Your task to perform on an android device: Search for pizza restaurants on Maps Image 0: 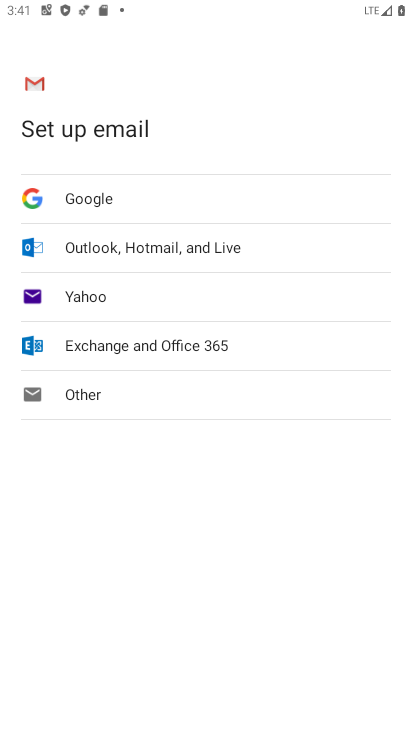
Step 0: press home button
Your task to perform on an android device: Search for pizza restaurants on Maps Image 1: 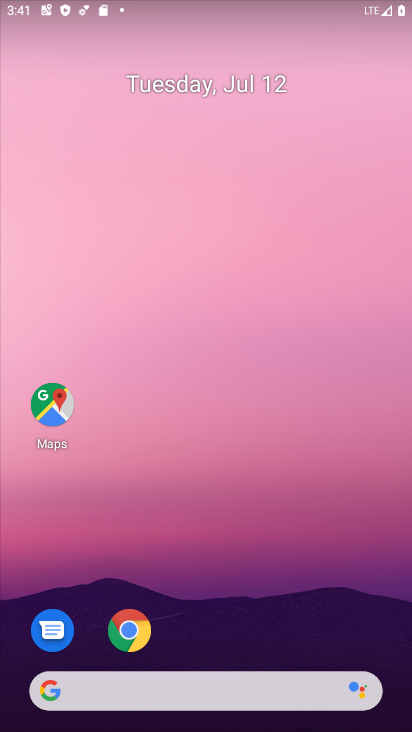
Step 1: drag from (262, 696) to (344, 3)
Your task to perform on an android device: Search for pizza restaurants on Maps Image 2: 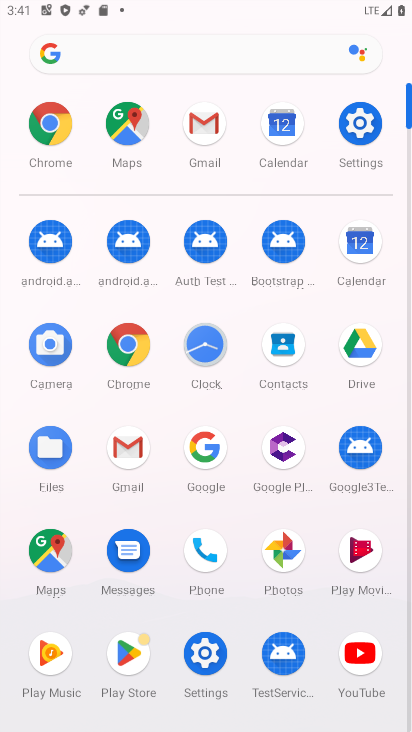
Step 2: click (39, 547)
Your task to perform on an android device: Search for pizza restaurants on Maps Image 3: 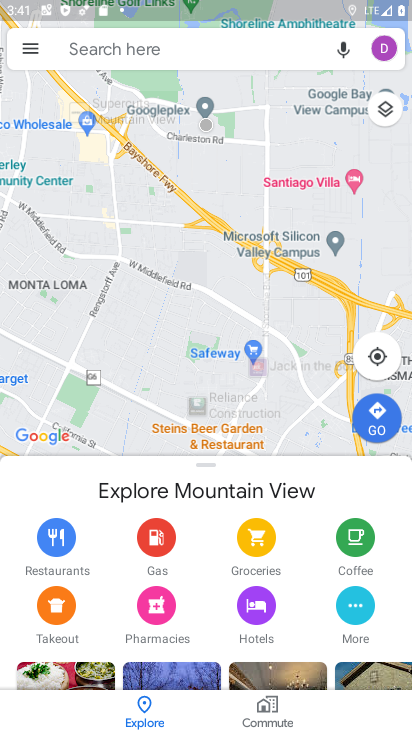
Step 3: click (247, 37)
Your task to perform on an android device: Search for pizza restaurants on Maps Image 4: 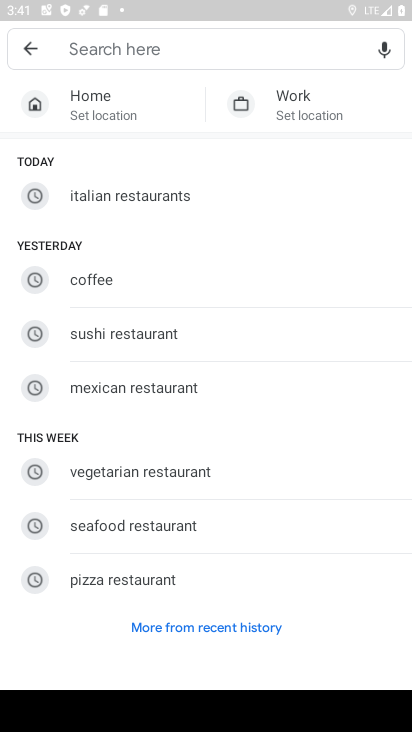
Step 4: click (151, 573)
Your task to perform on an android device: Search for pizza restaurants on Maps Image 5: 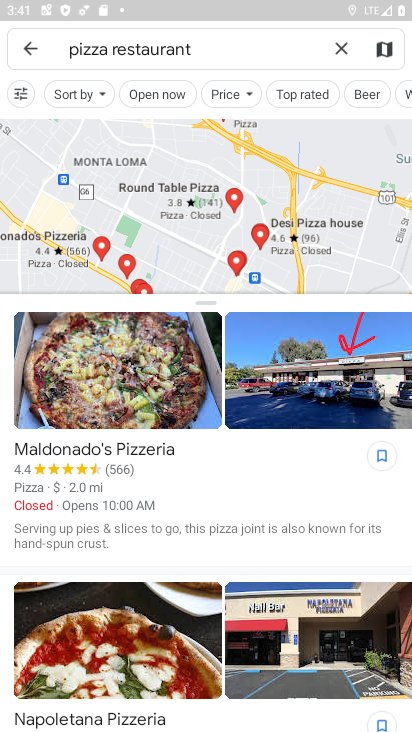
Step 5: task complete